Your task to perform on an android device: move a message to another label in the gmail app Image 0: 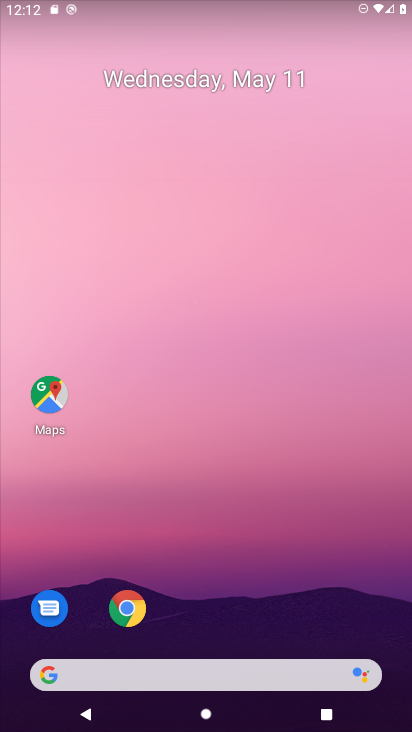
Step 0: drag from (271, 591) to (230, 46)
Your task to perform on an android device: move a message to another label in the gmail app Image 1: 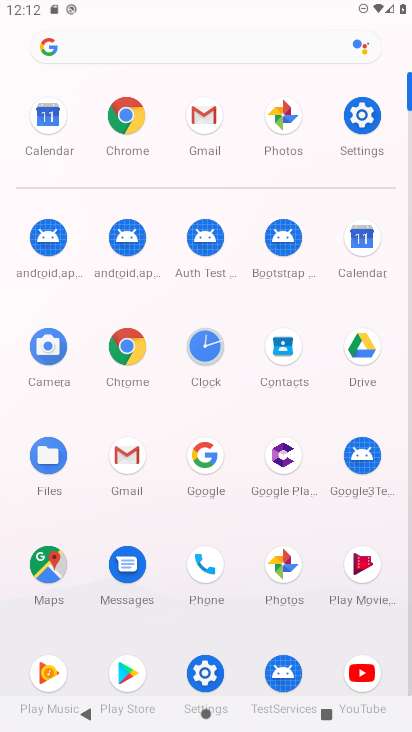
Step 1: click (205, 111)
Your task to perform on an android device: move a message to another label in the gmail app Image 2: 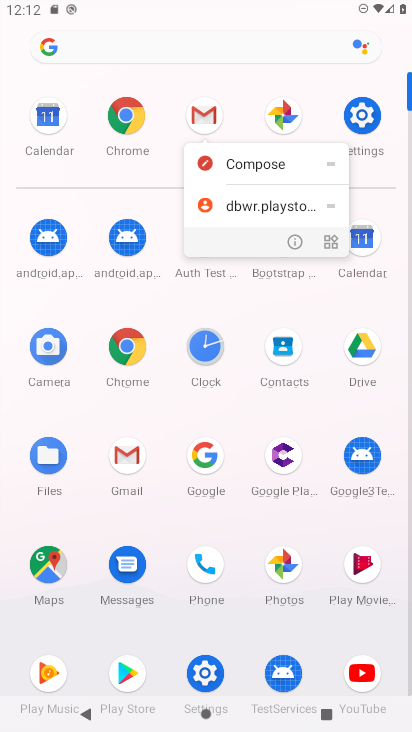
Step 2: click (205, 108)
Your task to perform on an android device: move a message to another label in the gmail app Image 3: 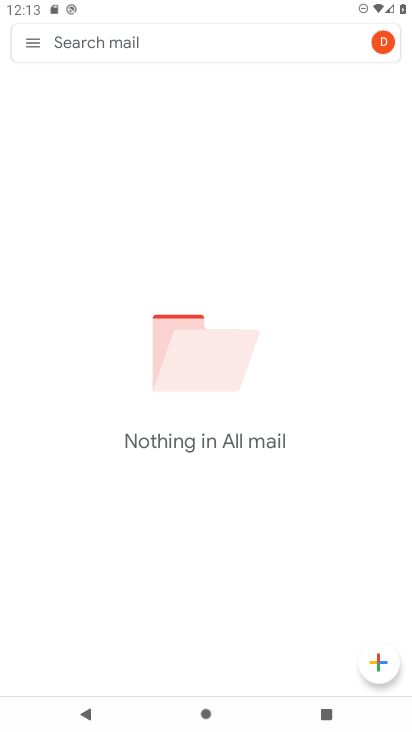
Step 3: task complete